Your task to perform on an android device: open the mobile data screen to see how much data has been used Image 0: 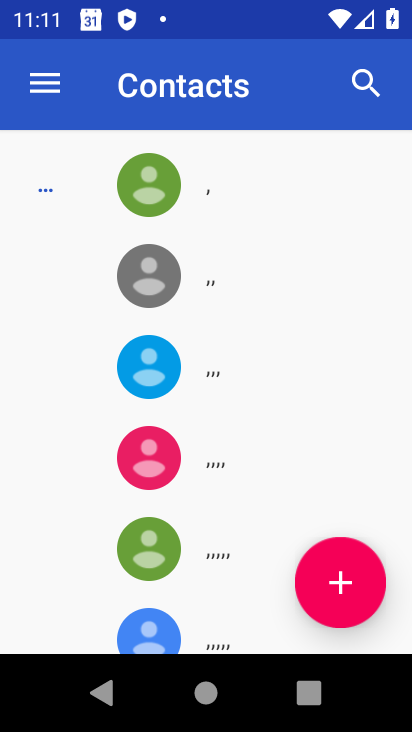
Step 0: drag from (352, 19) to (397, 645)
Your task to perform on an android device: open the mobile data screen to see how much data has been used Image 1: 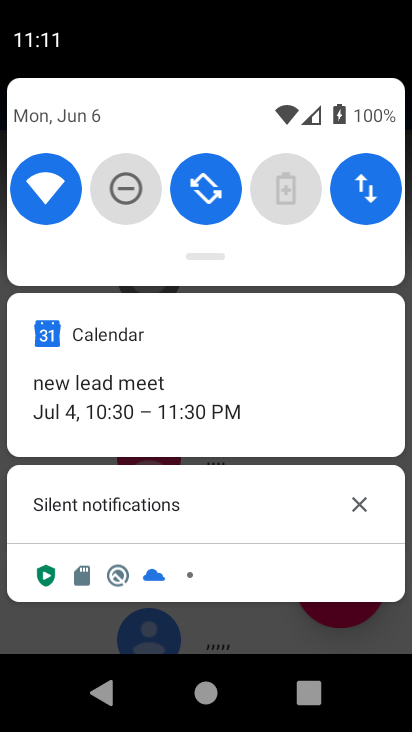
Step 1: click (361, 188)
Your task to perform on an android device: open the mobile data screen to see how much data has been used Image 2: 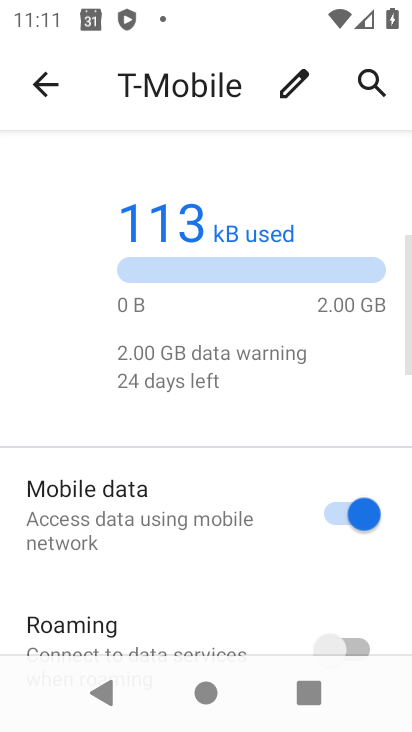
Step 2: task complete